Your task to perform on an android device: Open location settings Image 0: 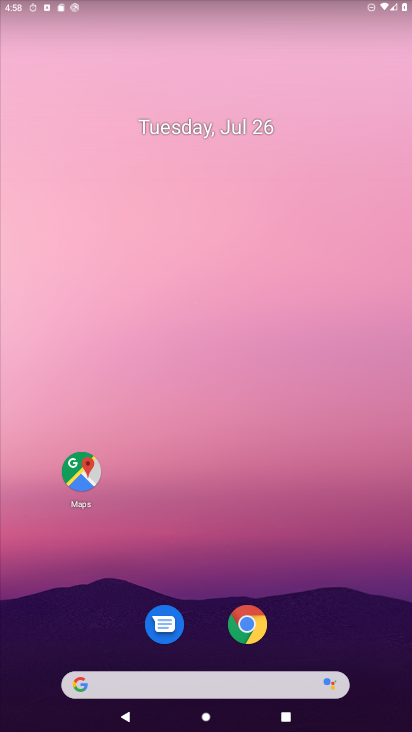
Step 0: drag from (291, 675) to (299, 10)
Your task to perform on an android device: Open location settings Image 1: 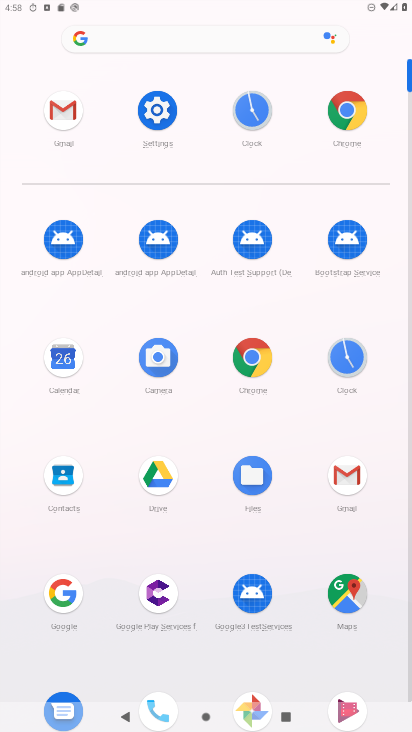
Step 1: click (154, 119)
Your task to perform on an android device: Open location settings Image 2: 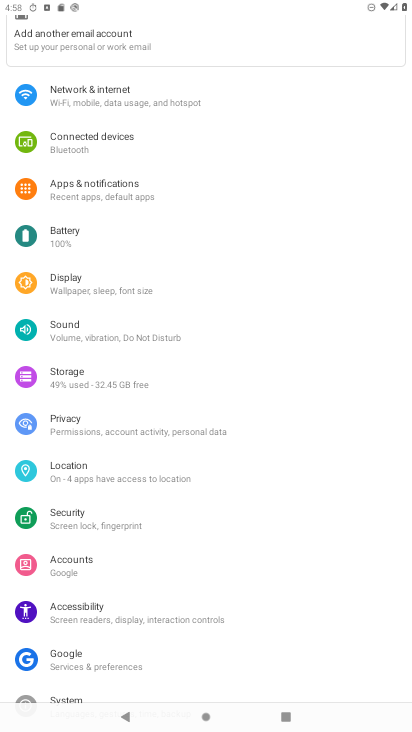
Step 2: click (79, 481)
Your task to perform on an android device: Open location settings Image 3: 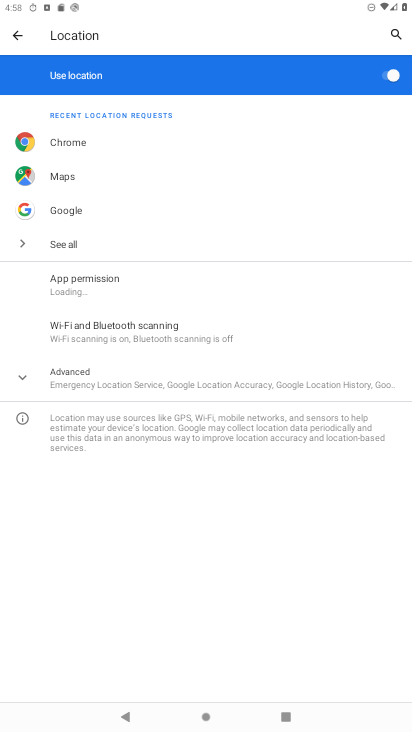
Step 3: click (102, 385)
Your task to perform on an android device: Open location settings Image 4: 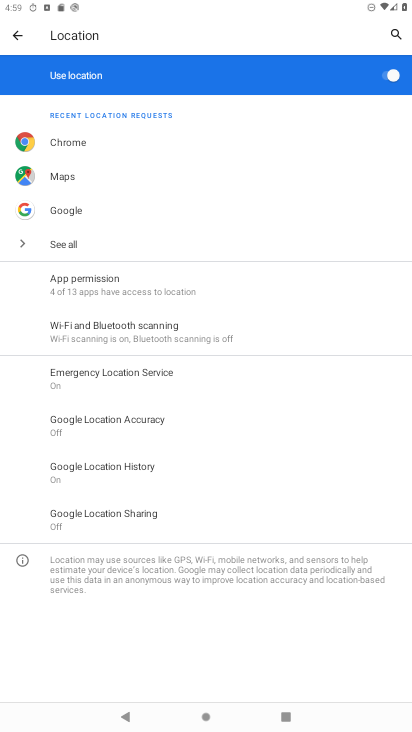
Step 4: task complete